Your task to perform on an android device: turn on notifications settings in the gmail app Image 0: 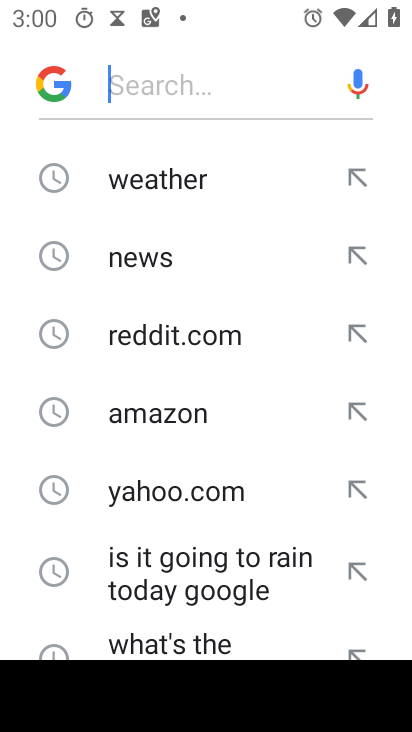
Step 0: press home button
Your task to perform on an android device: turn on notifications settings in the gmail app Image 1: 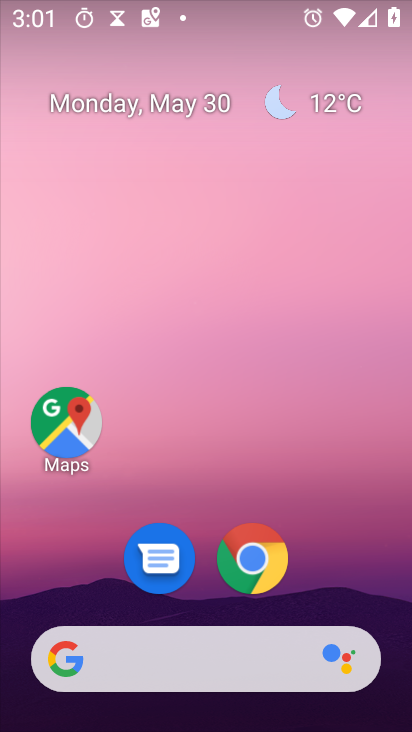
Step 1: drag from (185, 511) to (284, 72)
Your task to perform on an android device: turn on notifications settings in the gmail app Image 2: 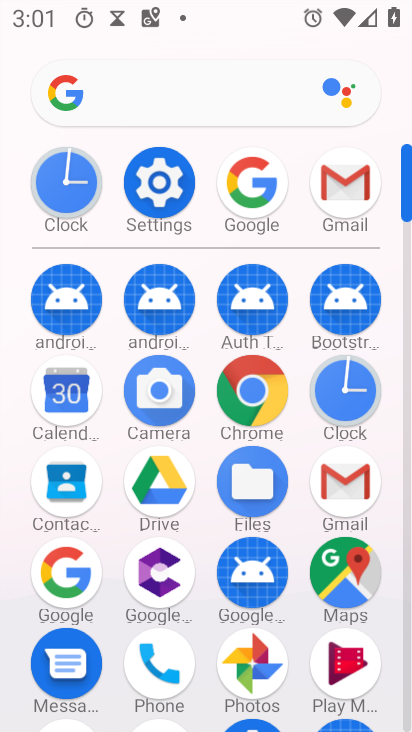
Step 2: click (332, 184)
Your task to perform on an android device: turn on notifications settings in the gmail app Image 3: 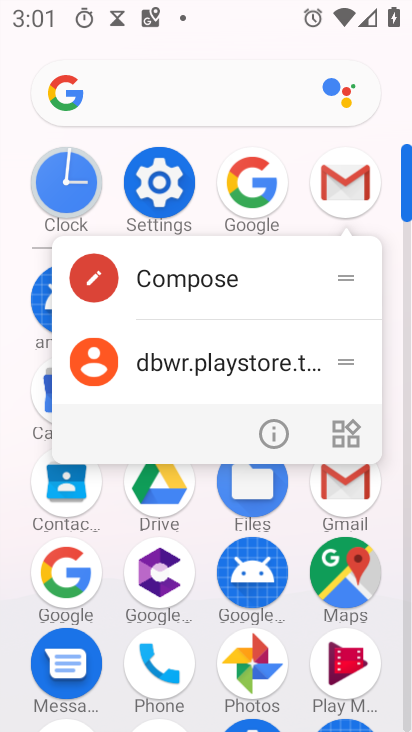
Step 3: click (278, 425)
Your task to perform on an android device: turn on notifications settings in the gmail app Image 4: 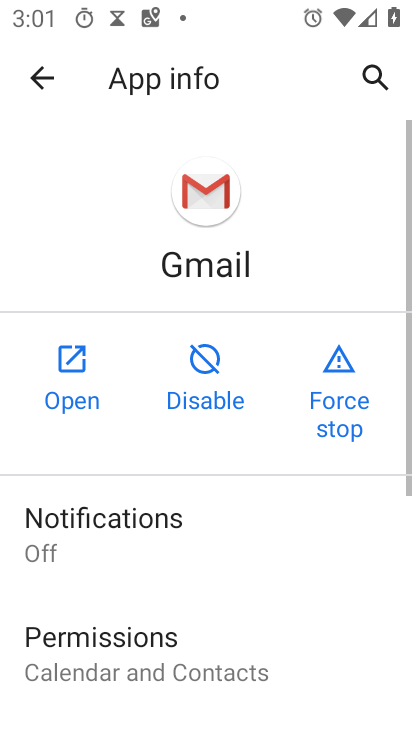
Step 4: click (158, 522)
Your task to perform on an android device: turn on notifications settings in the gmail app Image 5: 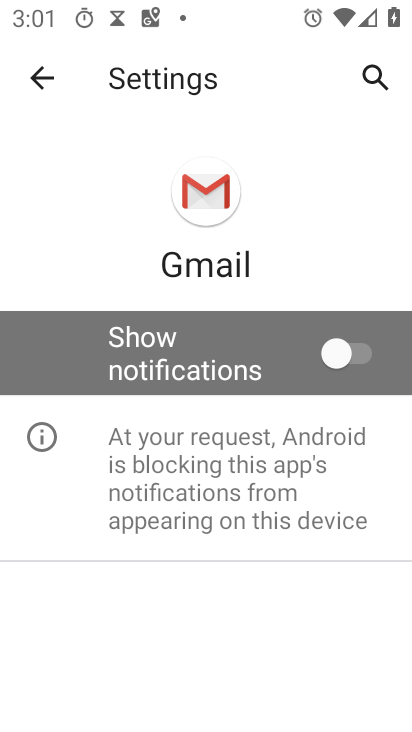
Step 5: click (334, 352)
Your task to perform on an android device: turn on notifications settings in the gmail app Image 6: 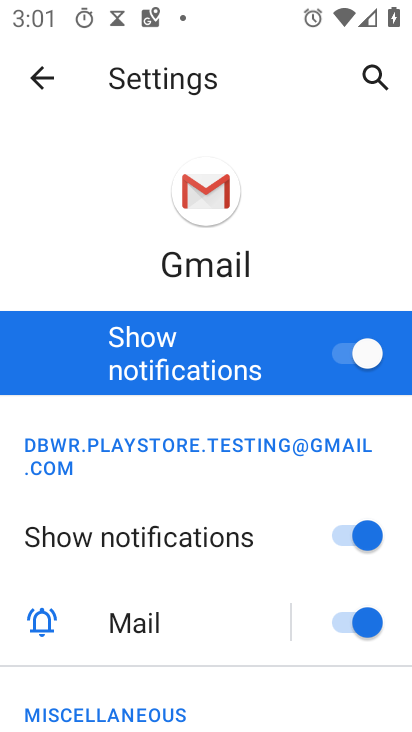
Step 6: task complete